Your task to perform on an android device: Open Google Chrome and click the shortcut for Amazon.com Image 0: 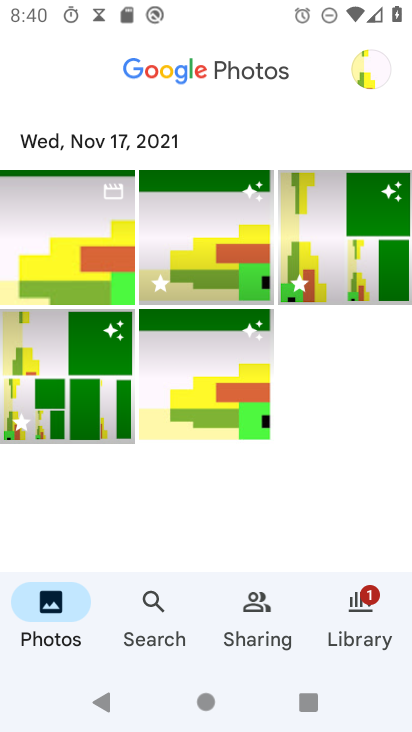
Step 0: press home button
Your task to perform on an android device: Open Google Chrome and click the shortcut for Amazon.com Image 1: 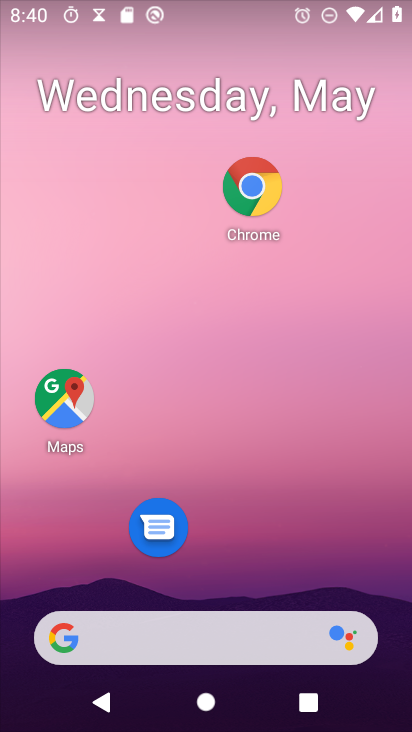
Step 1: drag from (265, 579) to (215, 71)
Your task to perform on an android device: Open Google Chrome and click the shortcut for Amazon.com Image 2: 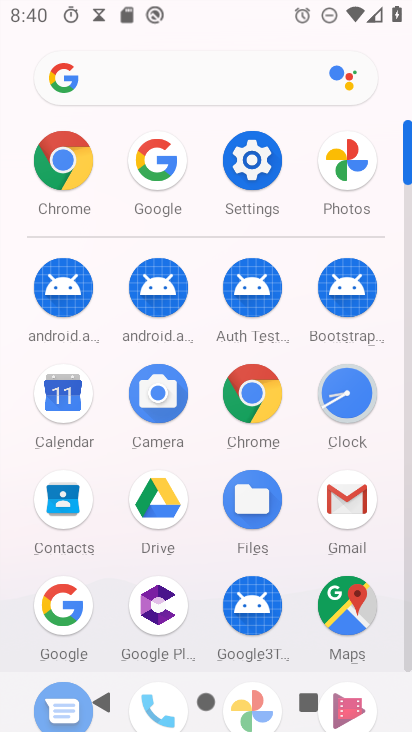
Step 2: click (63, 178)
Your task to perform on an android device: Open Google Chrome and click the shortcut for Amazon.com Image 3: 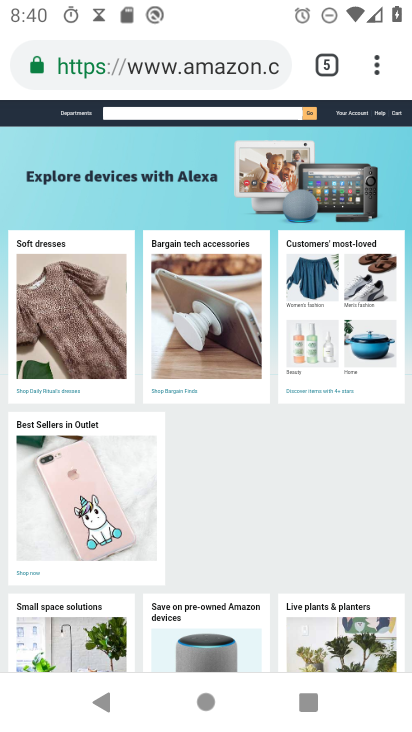
Step 3: task complete